Your task to perform on an android device: check storage Image 0: 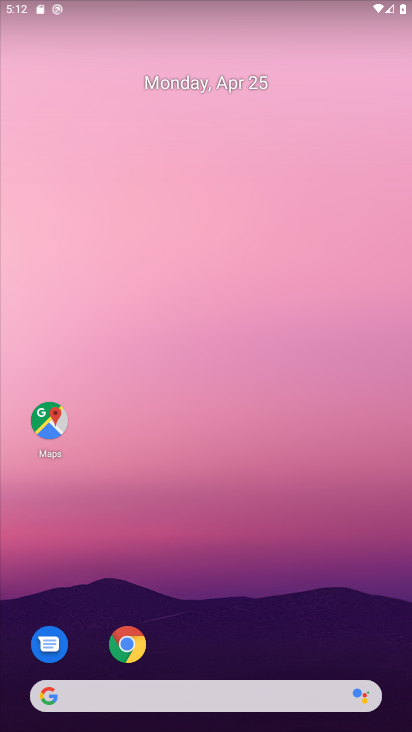
Step 0: drag from (257, 621) to (166, 106)
Your task to perform on an android device: check storage Image 1: 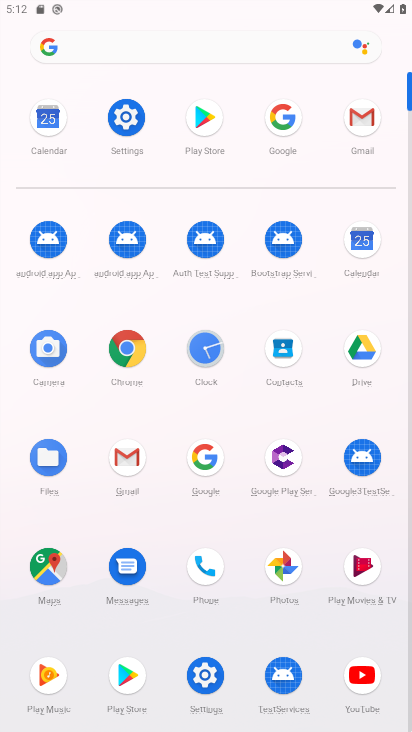
Step 1: click (130, 130)
Your task to perform on an android device: check storage Image 2: 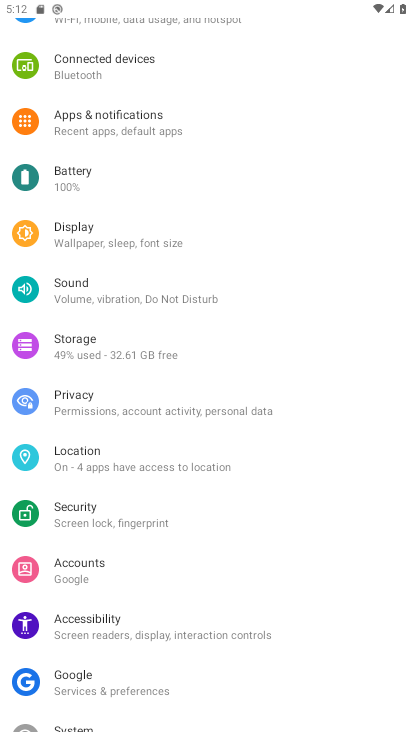
Step 2: click (108, 340)
Your task to perform on an android device: check storage Image 3: 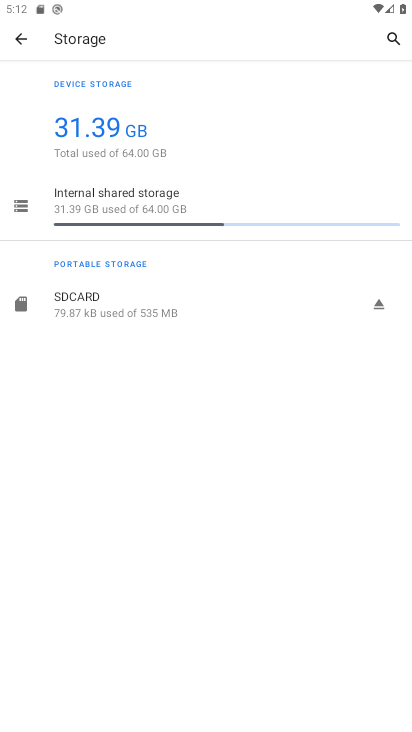
Step 3: task complete